Your task to perform on an android device: Do I have any events tomorrow? Image 0: 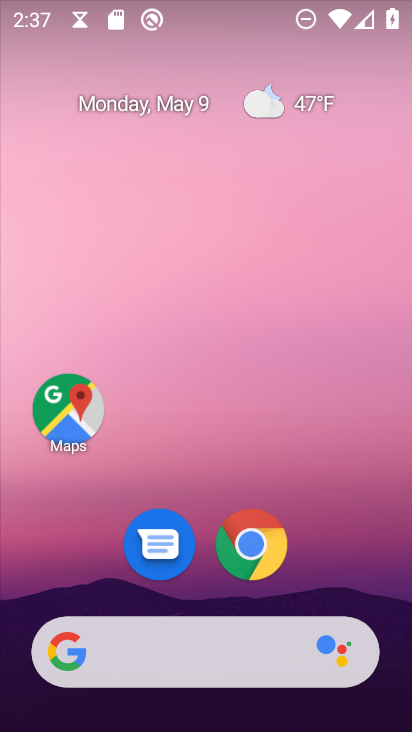
Step 0: click (360, 138)
Your task to perform on an android device: Do I have any events tomorrow? Image 1: 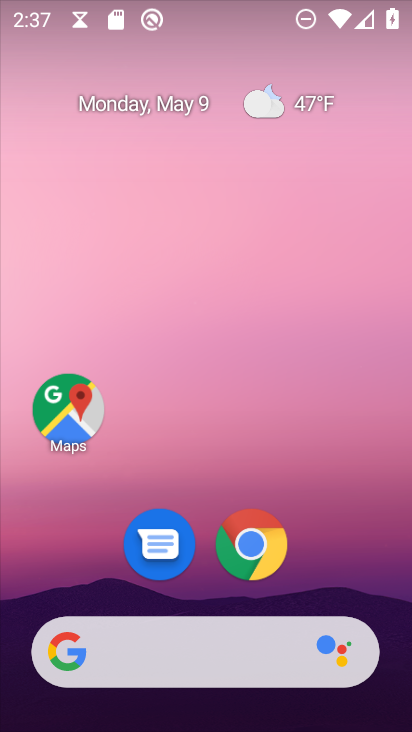
Step 1: drag from (347, 545) to (353, 167)
Your task to perform on an android device: Do I have any events tomorrow? Image 2: 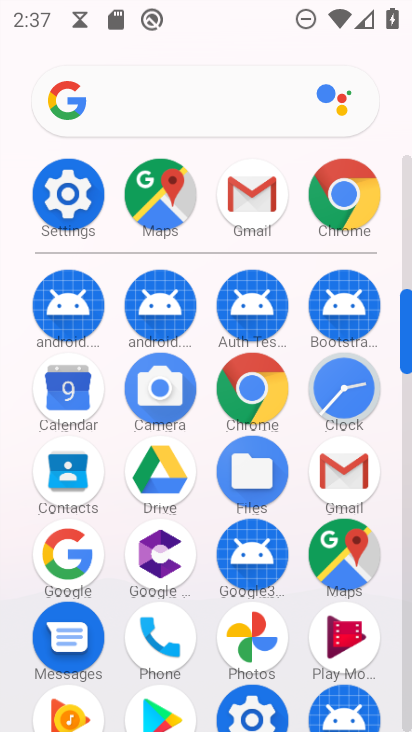
Step 2: click (69, 389)
Your task to perform on an android device: Do I have any events tomorrow? Image 3: 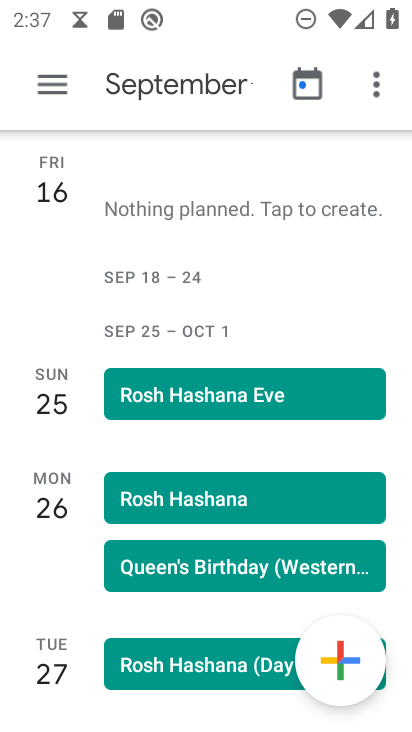
Step 3: click (153, 90)
Your task to perform on an android device: Do I have any events tomorrow? Image 4: 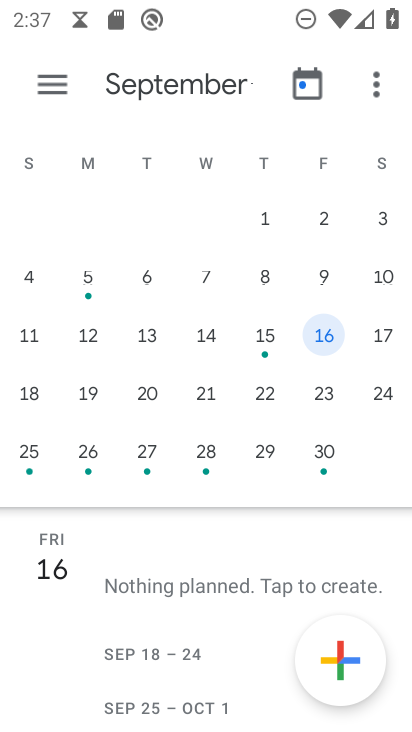
Step 4: click (378, 339)
Your task to perform on an android device: Do I have any events tomorrow? Image 5: 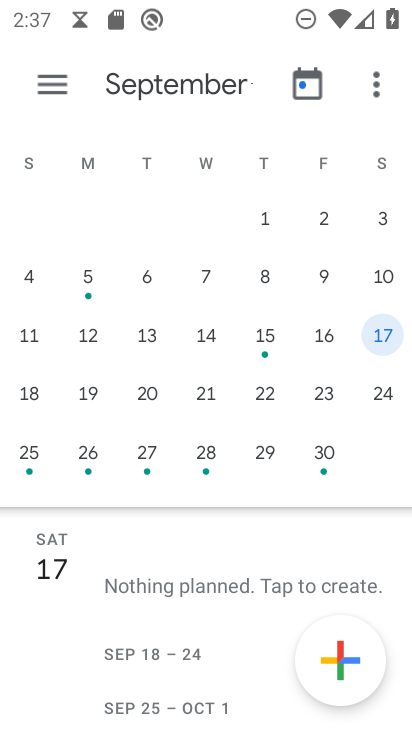
Step 5: task complete